Your task to perform on an android device: open chrome privacy settings Image 0: 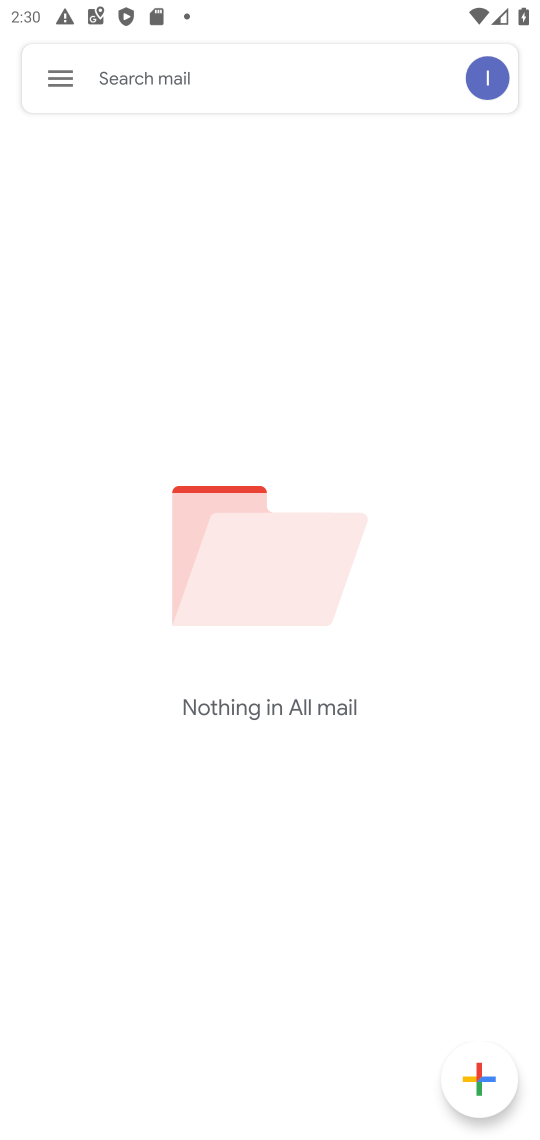
Step 0: press home button
Your task to perform on an android device: open chrome privacy settings Image 1: 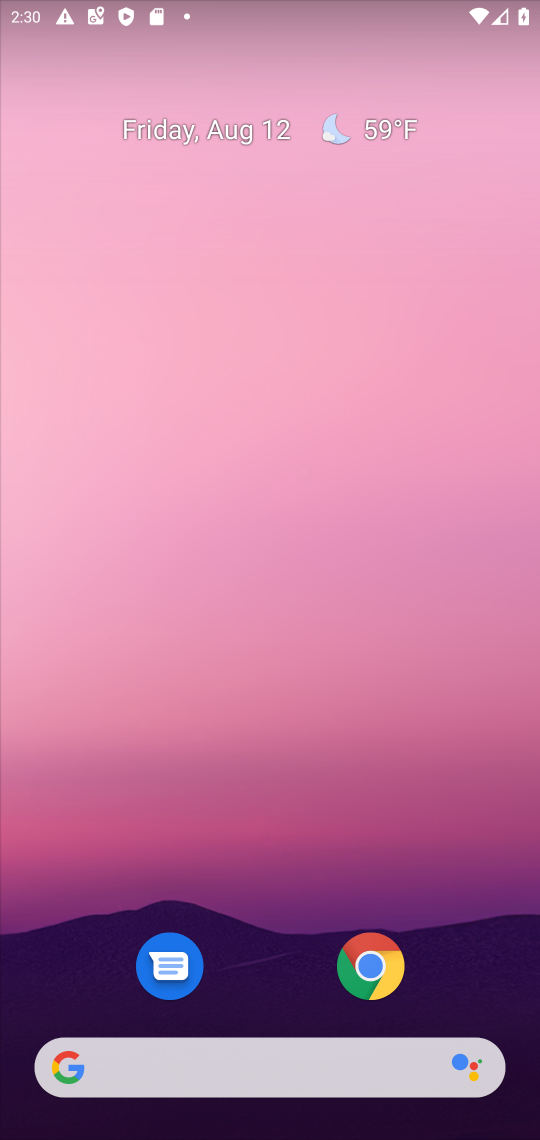
Step 1: drag from (256, 891) to (373, 153)
Your task to perform on an android device: open chrome privacy settings Image 2: 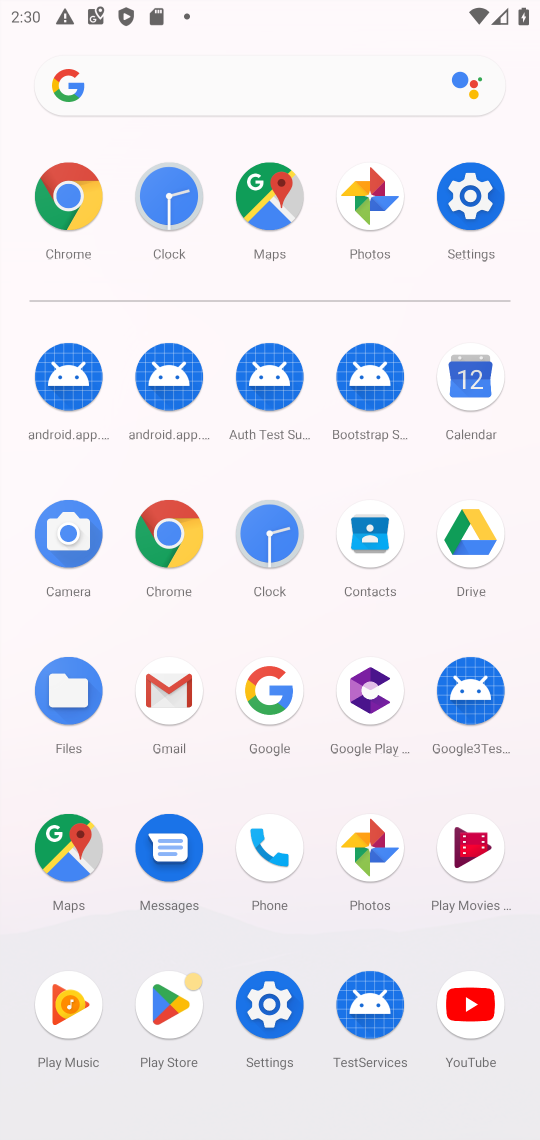
Step 2: click (166, 533)
Your task to perform on an android device: open chrome privacy settings Image 3: 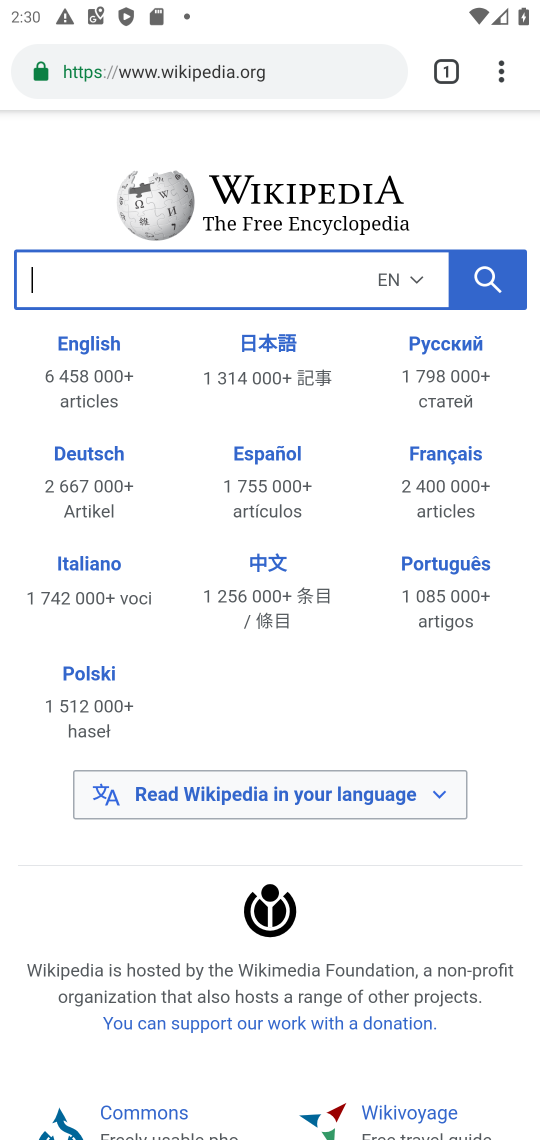
Step 3: drag from (514, 68) to (250, 874)
Your task to perform on an android device: open chrome privacy settings Image 4: 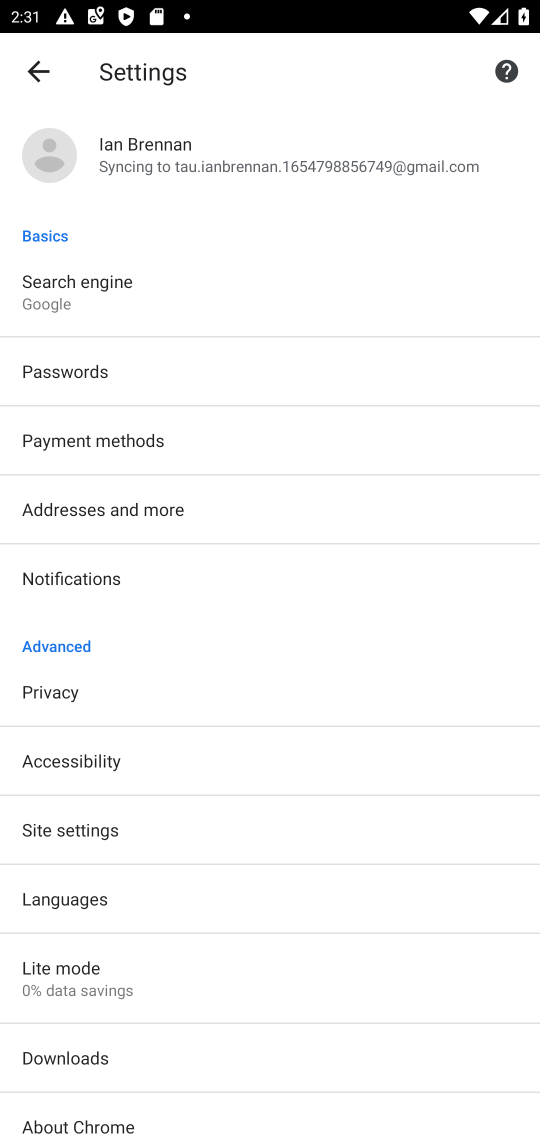
Step 4: click (69, 693)
Your task to perform on an android device: open chrome privacy settings Image 5: 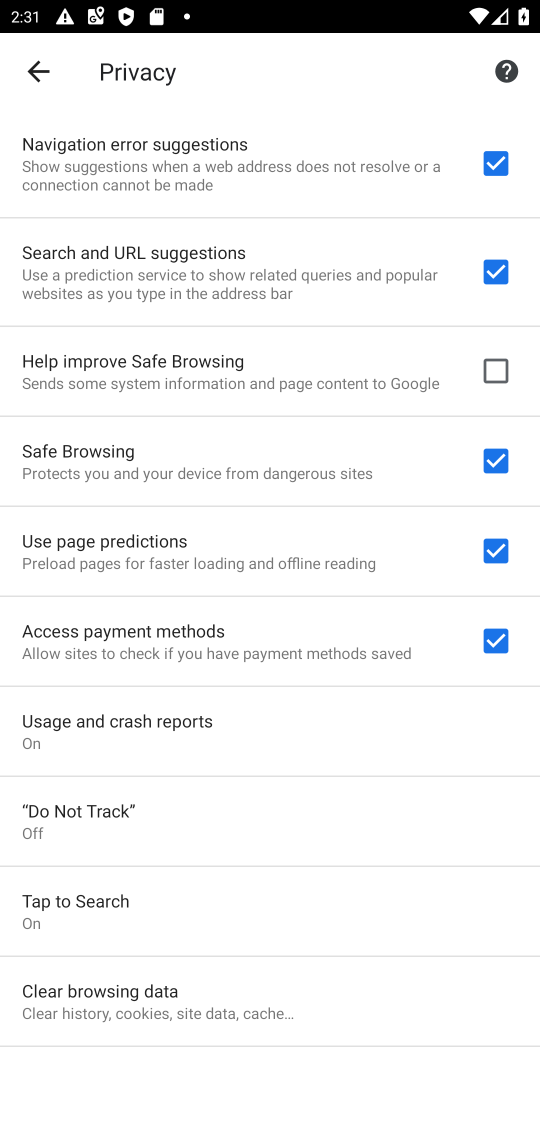
Step 5: task complete